Your task to perform on an android device: change the clock display to digital Image 0: 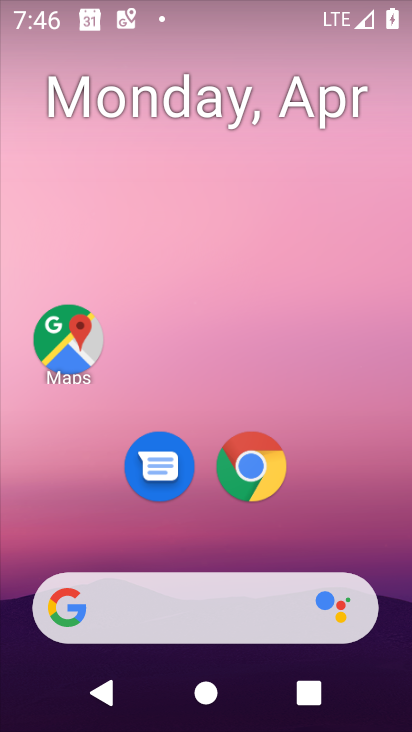
Step 0: click (254, 472)
Your task to perform on an android device: change the clock display to digital Image 1: 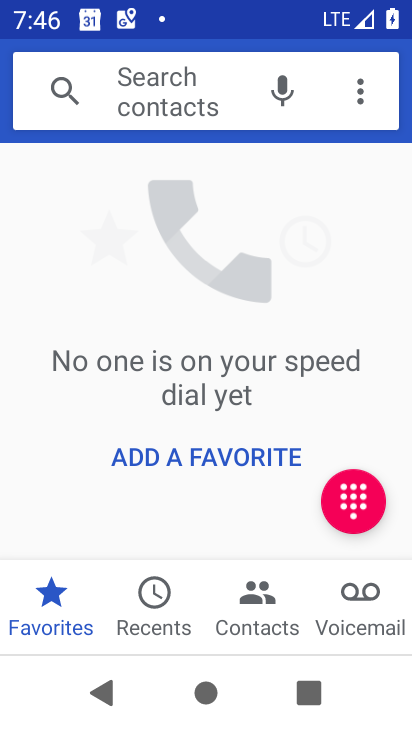
Step 1: drag from (210, 463) to (300, 285)
Your task to perform on an android device: change the clock display to digital Image 2: 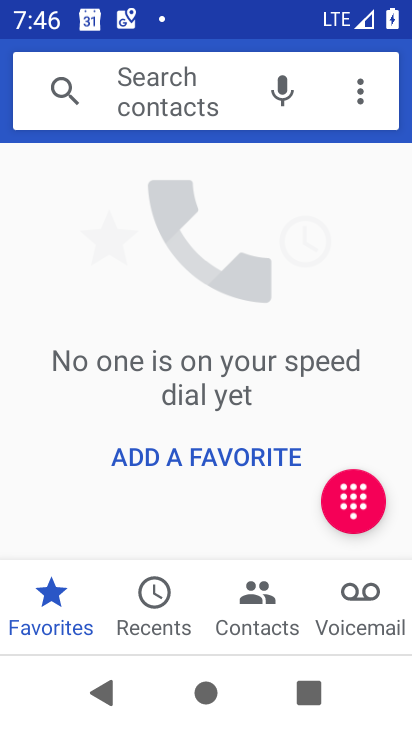
Step 2: press home button
Your task to perform on an android device: change the clock display to digital Image 3: 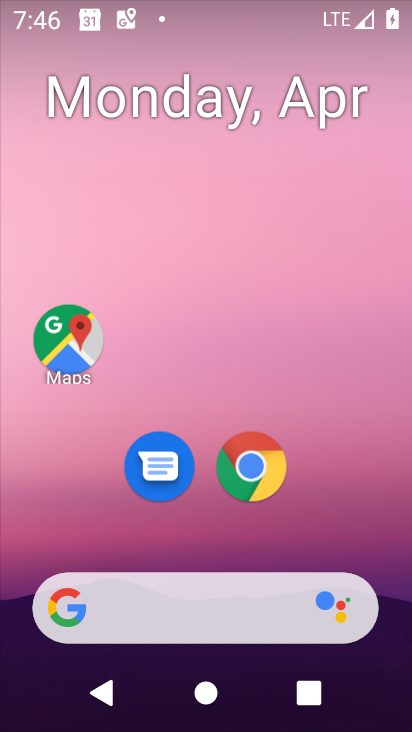
Step 3: drag from (180, 555) to (261, 87)
Your task to perform on an android device: change the clock display to digital Image 4: 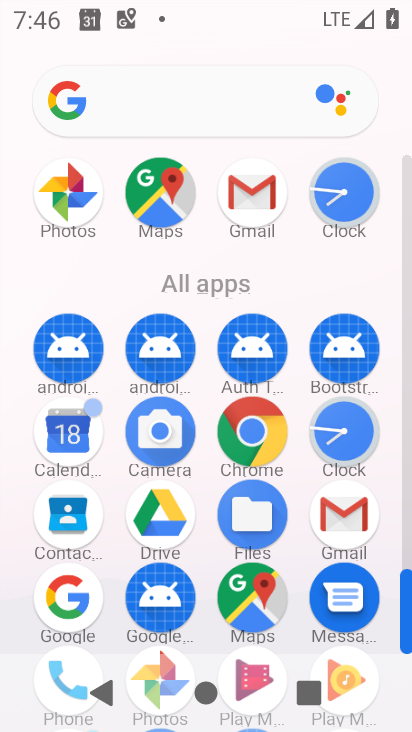
Step 4: click (337, 438)
Your task to perform on an android device: change the clock display to digital Image 5: 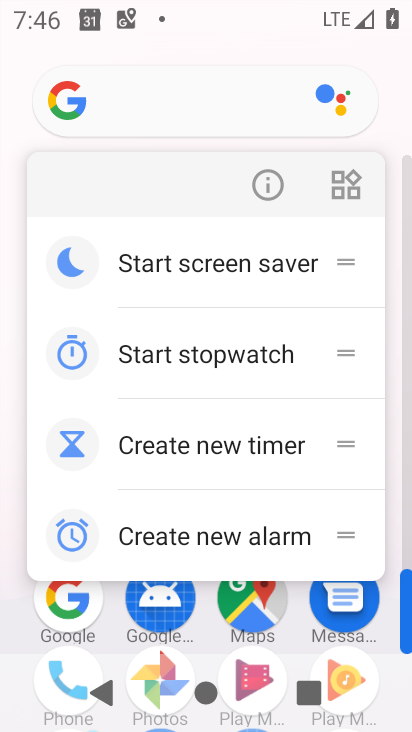
Step 5: click (272, 179)
Your task to perform on an android device: change the clock display to digital Image 6: 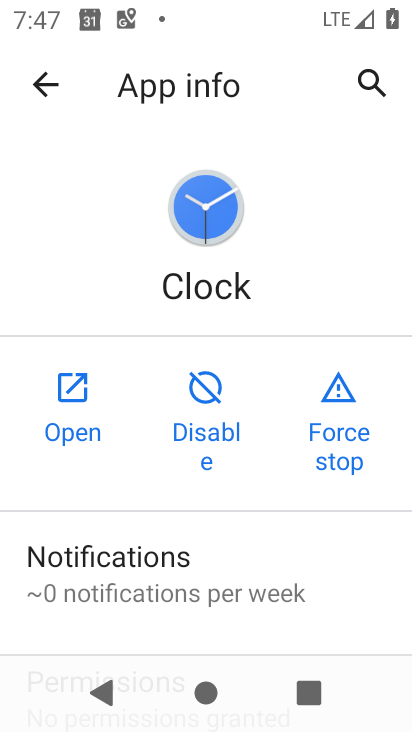
Step 6: click (100, 421)
Your task to perform on an android device: change the clock display to digital Image 7: 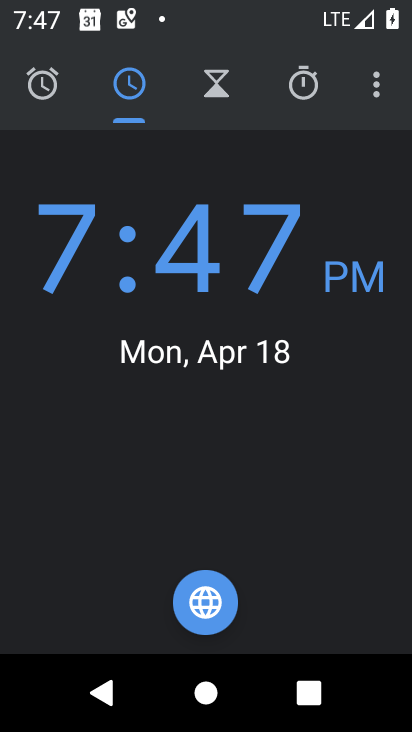
Step 7: click (377, 86)
Your task to perform on an android device: change the clock display to digital Image 8: 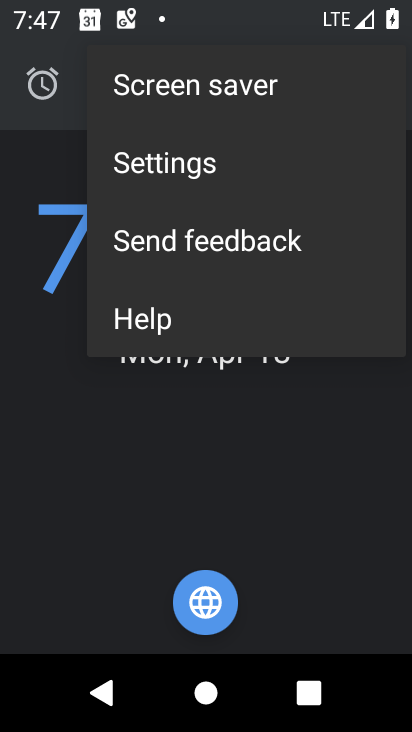
Step 8: click (164, 160)
Your task to perform on an android device: change the clock display to digital Image 9: 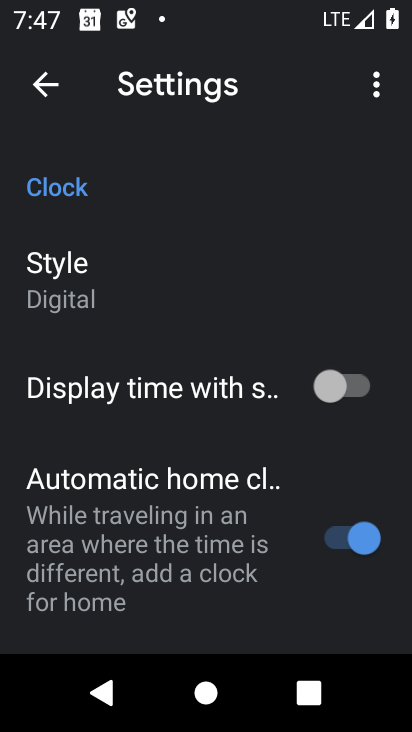
Step 9: click (103, 273)
Your task to perform on an android device: change the clock display to digital Image 10: 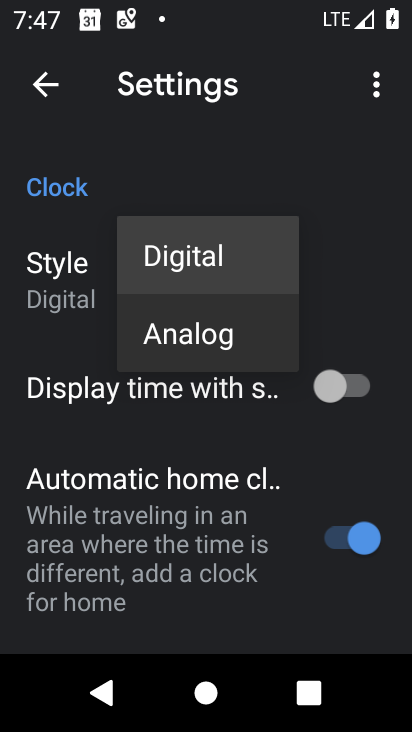
Step 10: click (217, 235)
Your task to perform on an android device: change the clock display to digital Image 11: 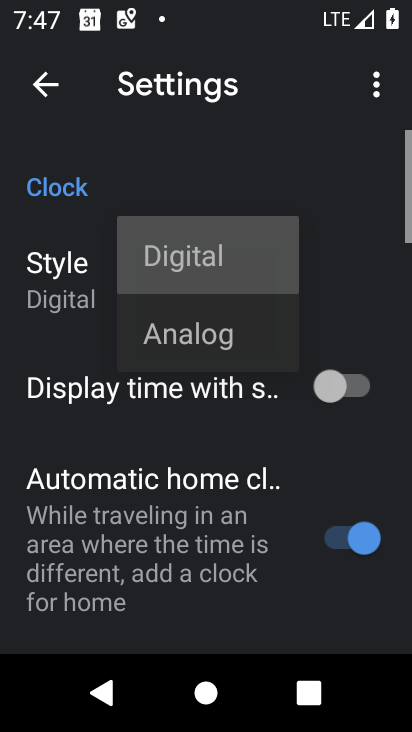
Step 11: task complete